Your task to perform on an android device: Find coffee shops on Maps Image 0: 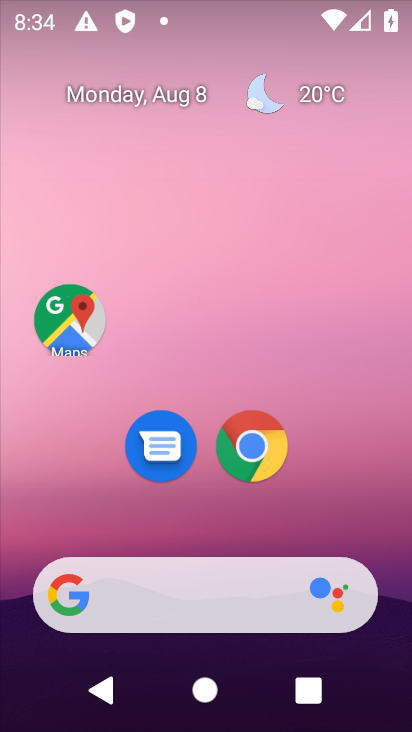
Step 0: click (71, 327)
Your task to perform on an android device: Find coffee shops on Maps Image 1: 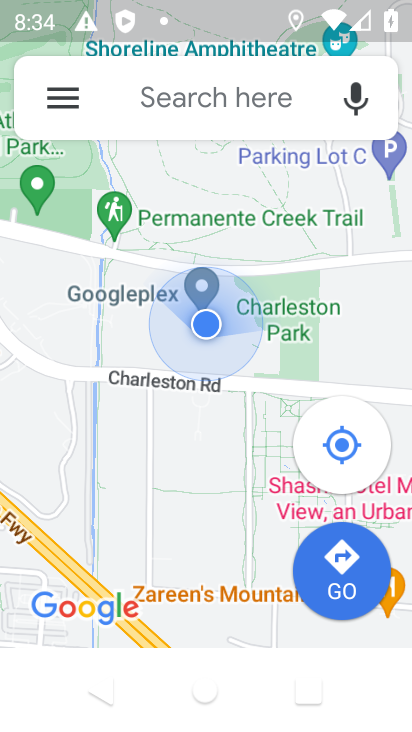
Step 1: click (218, 94)
Your task to perform on an android device: Find coffee shops on Maps Image 2: 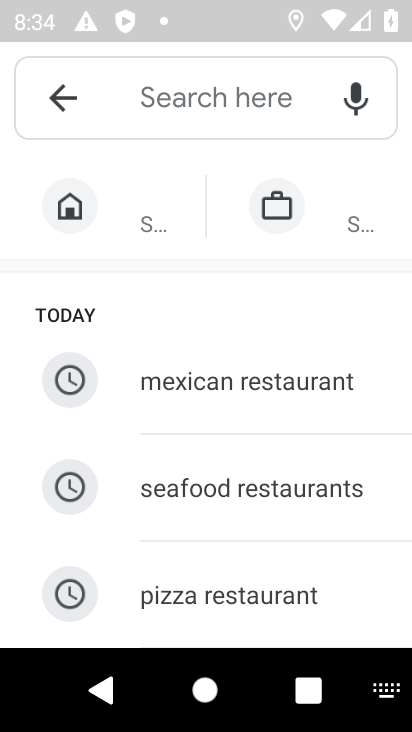
Step 2: type "coffee shops"
Your task to perform on an android device: Find coffee shops on Maps Image 3: 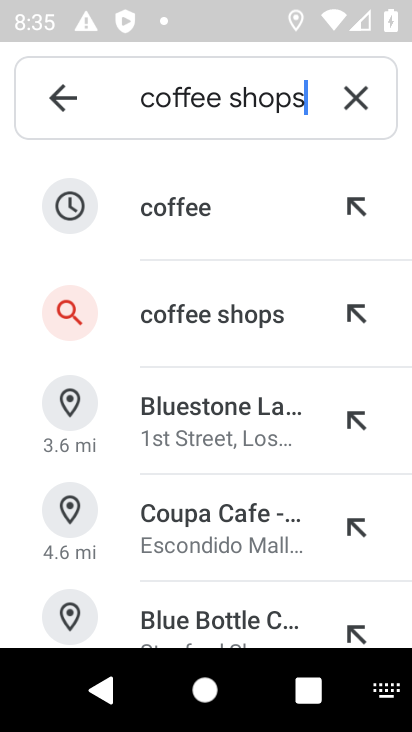
Step 3: click (201, 321)
Your task to perform on an android device: Find coffee shops on Maps Image 4: 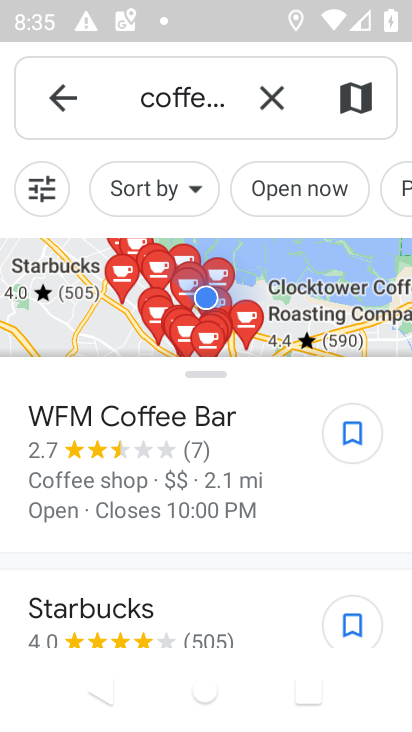
Step 4: task complete